Your task to perform on an android device: open app "LinkedIn" (install if not already installed) and go to login screen Image 0: 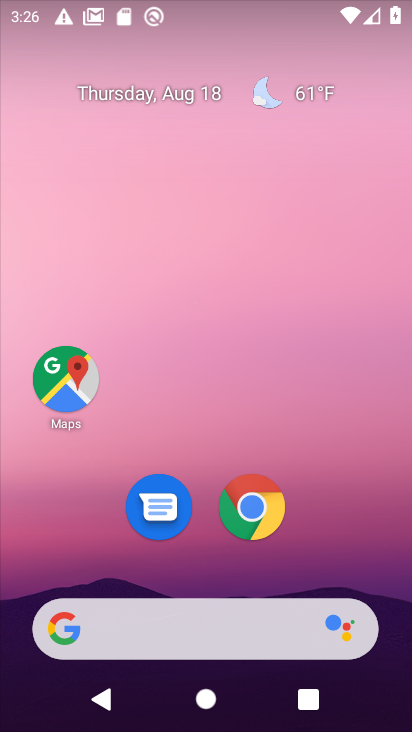
Step 0: drag from (168, 574) to (210, 47)
Your task to perform on an android device: open app "LinkedIn" (install if not already installed) and go to login screen Image 1: 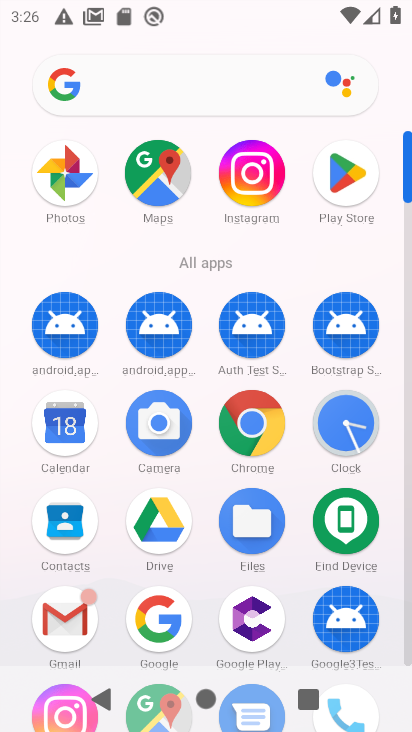
Step 1: click (337, 175)
Your task to perform on an android device: open app "LinkedIn" (install if not already installed) and go to login screen Image 2: 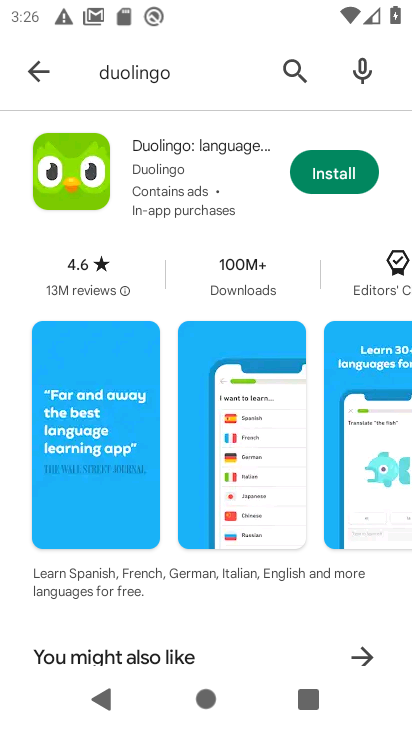
Step 2: click (300, 64)
Your task to perform on an android device: open app "LinkedIn" (install if not already installed) and go to login screen Image 3: 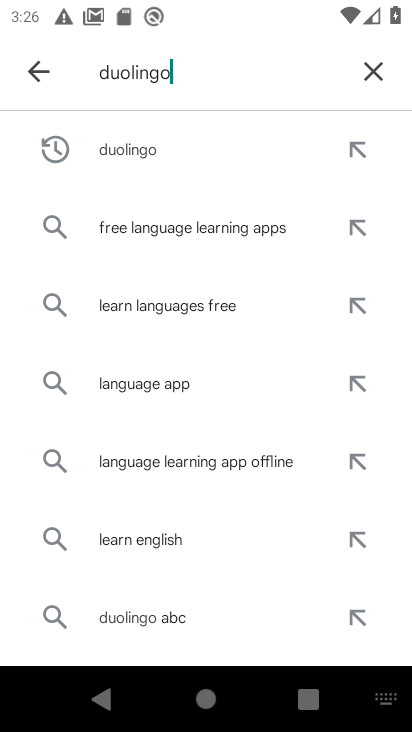
Step 3: click (386, 65)
Your task to perform on an android device: open app "LinkedIn" (install if not already installed) and go to login screen Image 4: 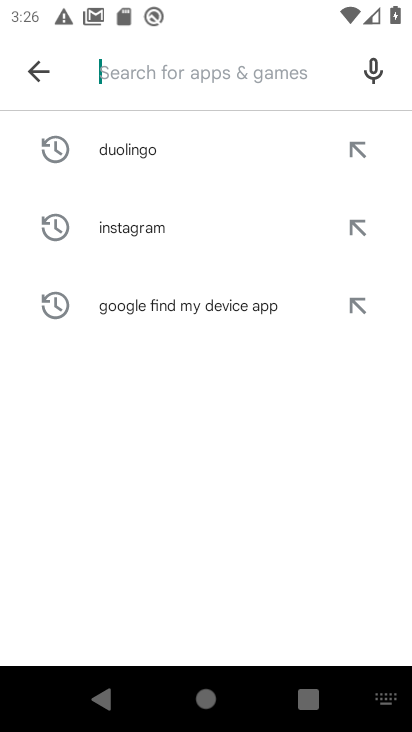
Step 4: click (197, 67)
Your task to perform on an android device: open app "LinkedIn" (install if not already installed) and go to login screen Image 5: 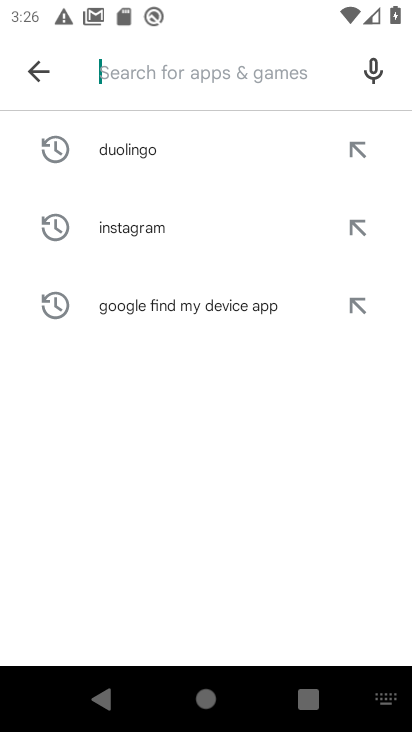
Step 5: type "linkedln"
Your task to perform on an android device: open app "LinkedIn" (install if not already installed) and go to login screen Image 6: 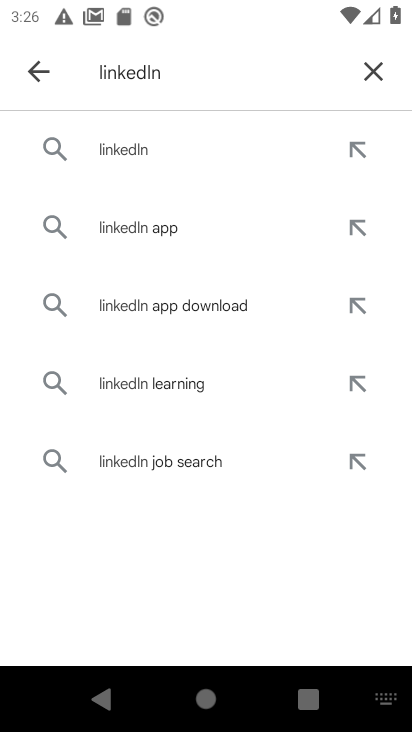
Step 6: click (157, 147)
Your task to perform on an android device: open app "LinkedIn" (install if not already installed) and go to login screen Image 7: 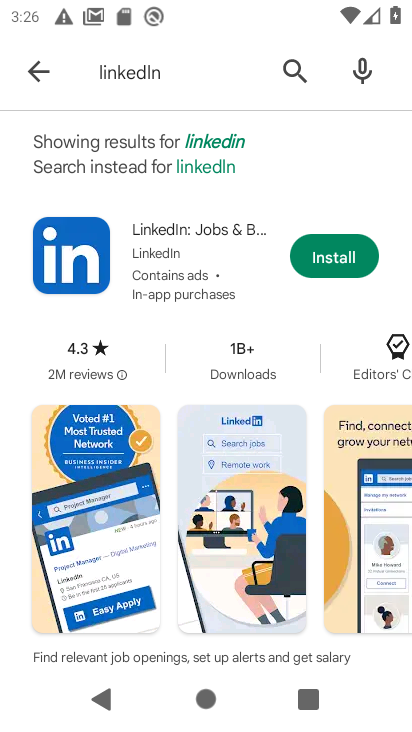
Step 7: click (320, 258)
Your task to perform on an android device: open app "LinkedIn" (install if not already installed) and go to login screen Image 8: 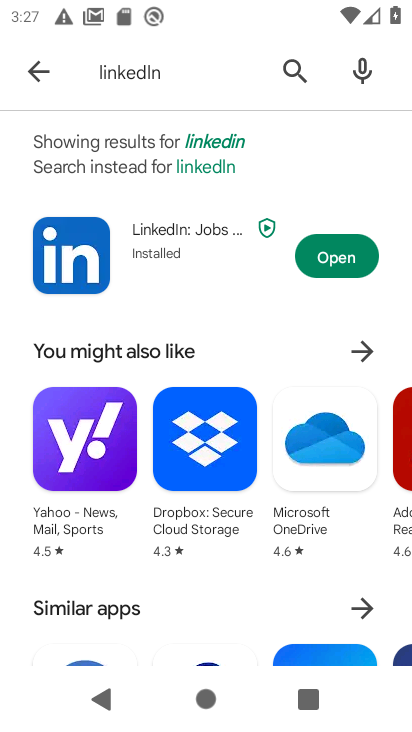
Step 8: click (341, 261)
Your task to perform on an android device: open app "LinkedIn" (install if not already installed) and go to login screen Image 9: 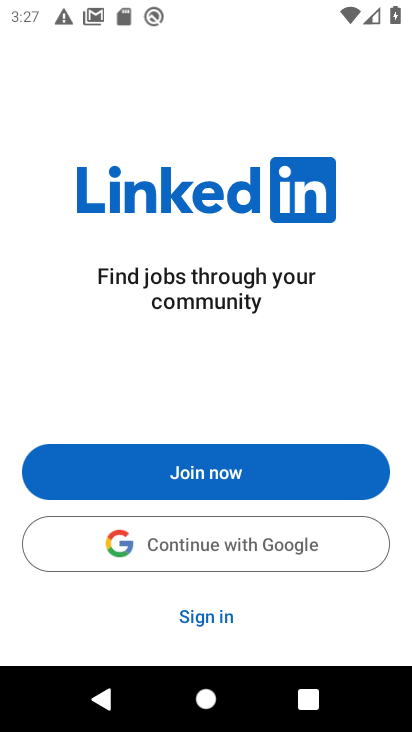
Step 9: click (224, 627)
Your task to perform on an android device: open app "LinkedIn" (install if not already installed) and go to login screen Image 10: 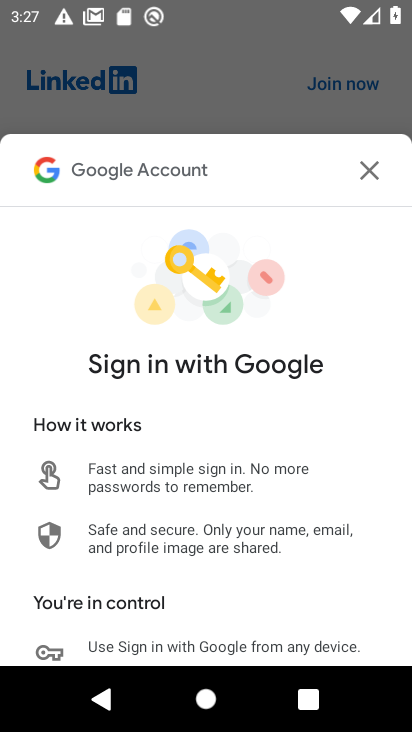
Step 10: task complete